Your task to perform on an android device: Open calendar and show me the second week of next month Image 0: 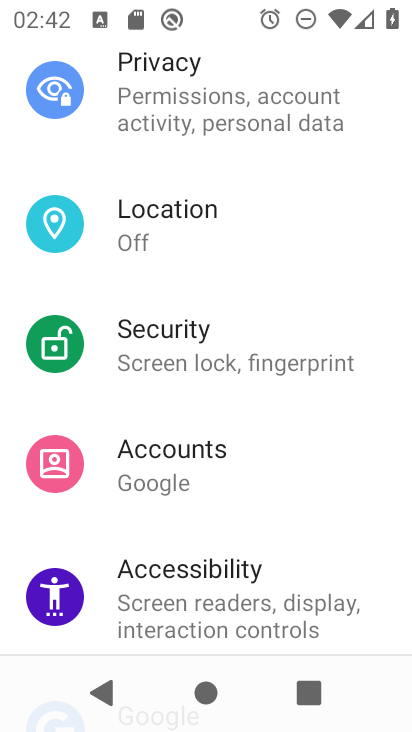
Step 0: press home button
Your task to perform on an android device: Open calendar and show me the second week of next month Image 1: 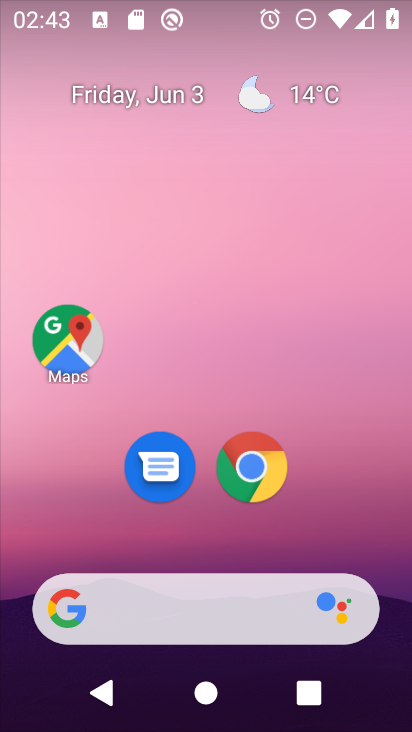
Step 1: drag from (326, 526) to (305, 71)
Your task to perform on an android device: Open calendar and show me the second week of next month Image 2: 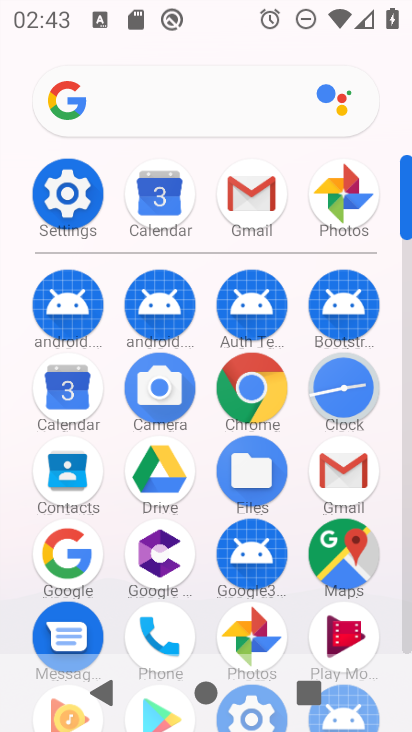
Step 2: click (65, 387)
Your task to perform on an android device: Open calendar and show me the second week of next month Image 3: 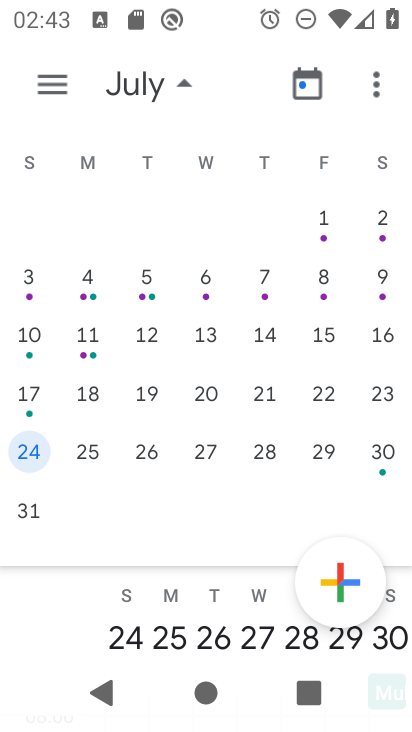
Step 3: click (30, 335)
Your task to perform on an android device: Open calendar and show me the second week of next month Image 4: 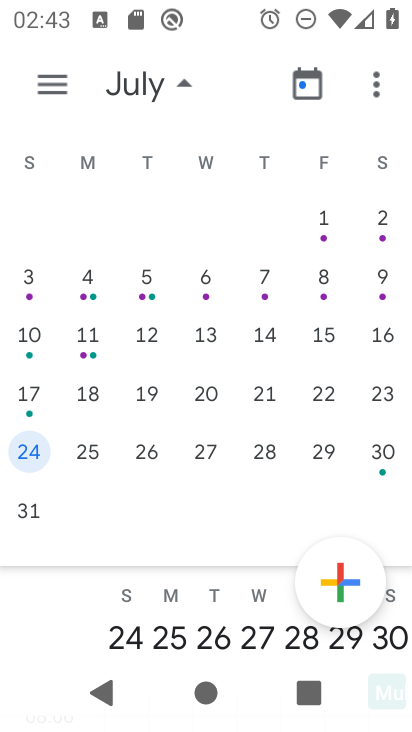
Step 4: click (26, 340)
Your task to perform on an android device: Open calendar and show me the second week of next month Image 5: 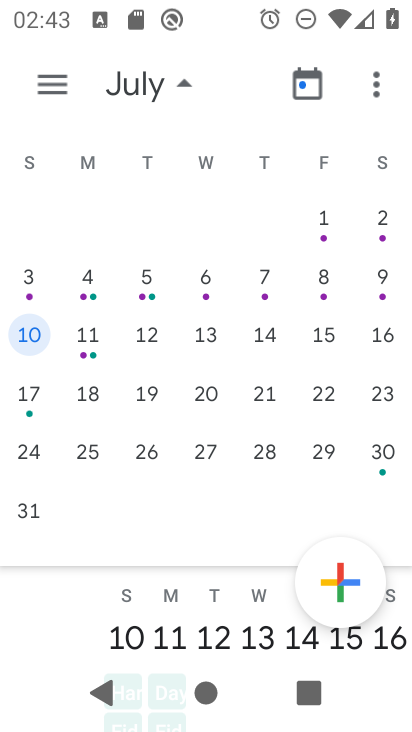
Step 5: drag from (206, 563) to (187, 164)
Your task to perform on an android device: Open calendar and show me the second week of next month Image 6: 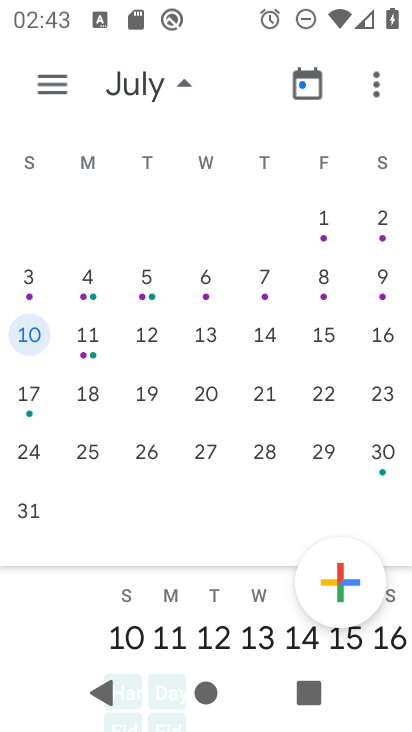
Step 6: click (180, 84)
Your task to perform on an android device: Open calendar and show me the second week of next month Image 7: 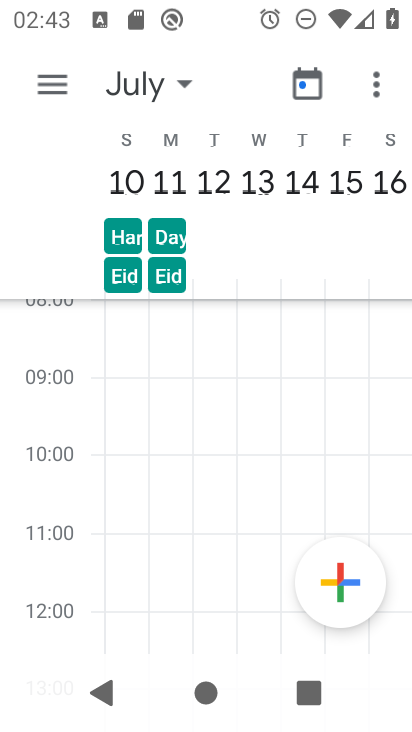
Step 7: task complete